Your task to perform on an android device: What's the weather going to be this weekend? Image 0: 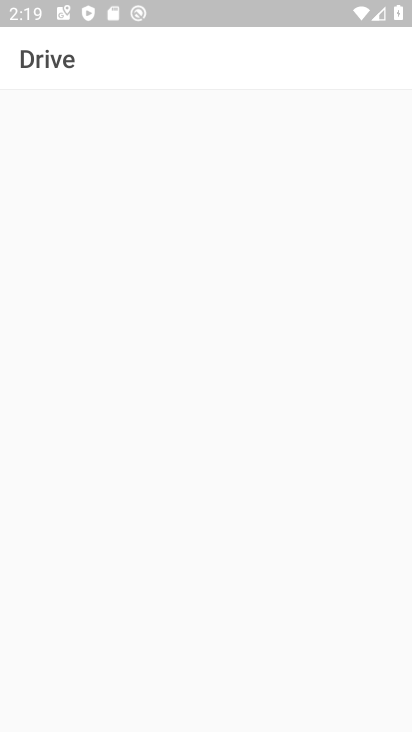
Step 0: press back button
Your task to perform on an android device: What's the weather going to be this weekend? Image 1: 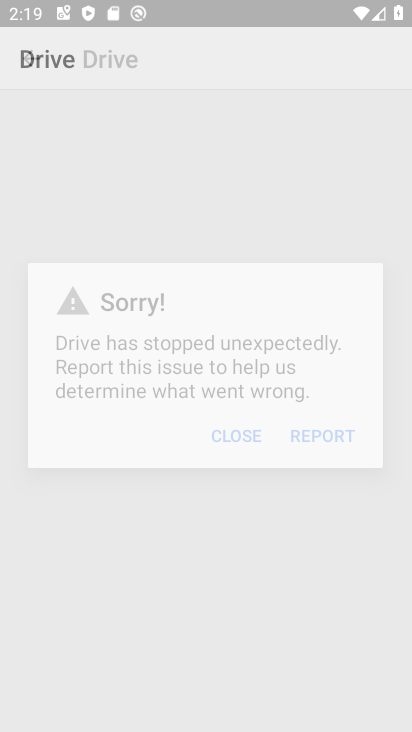
Step 1: press home button
Your task to perform on an android device: What's the weather going to be this weekend? Image 2: 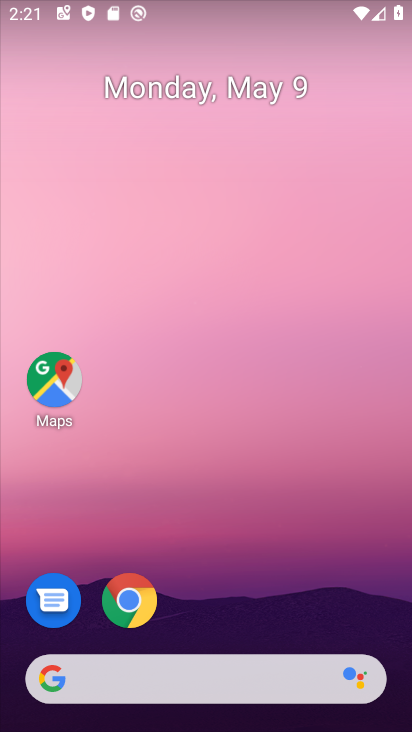
Step 2: drag from (218, 608) to (311, 58)
Your task to perform on an android device: What's the weather going to be this weekend? Image 3: 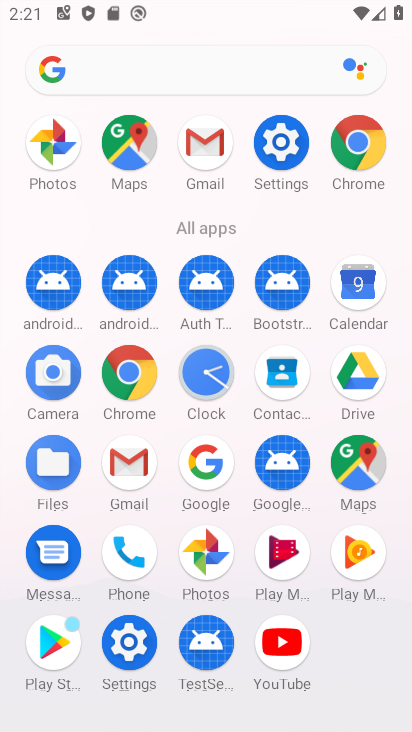
Step 3: click (185, 79)
Your task to perform on an android device: What's the weather going to be this weekend? Image 4: 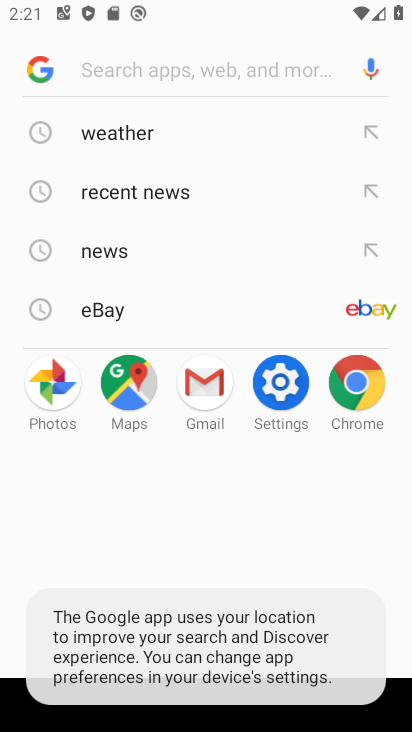
Step 4: click (127, 132)
Your task to perform on an android device: What's the weather going to be this weekend? Image 5: 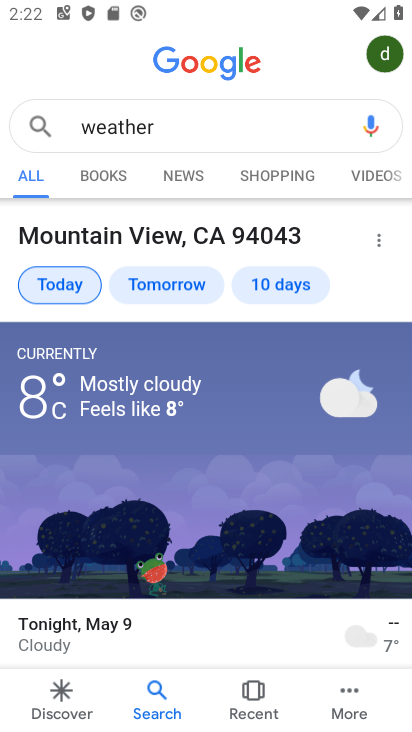
Step 5: click (281, 292)
Your task to perform on an android device: What's the weather going to be this weekend? Image 6: 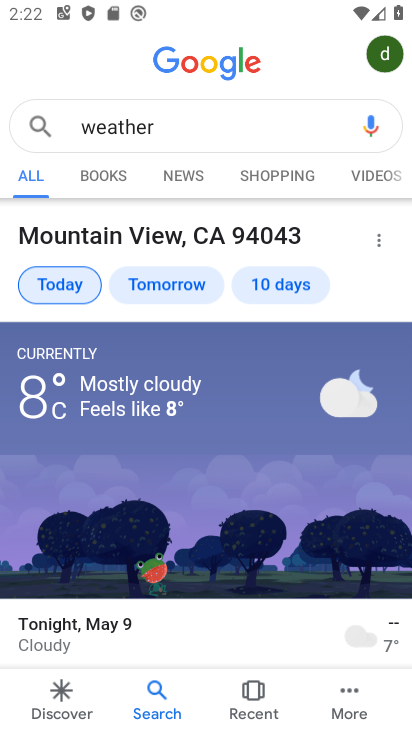
Step 6: click (273, 288)
Your task to perform on an android device: What's the weather going to be this weekend? Image 7: 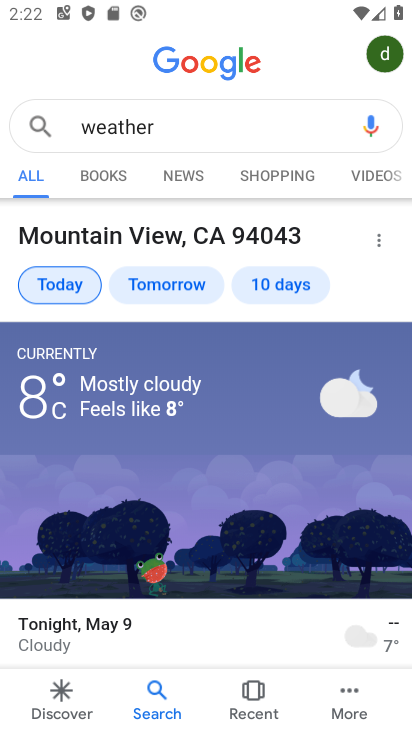
Step 7: task complete